Your task to perform on an android device: turn notification dots on Image 0: 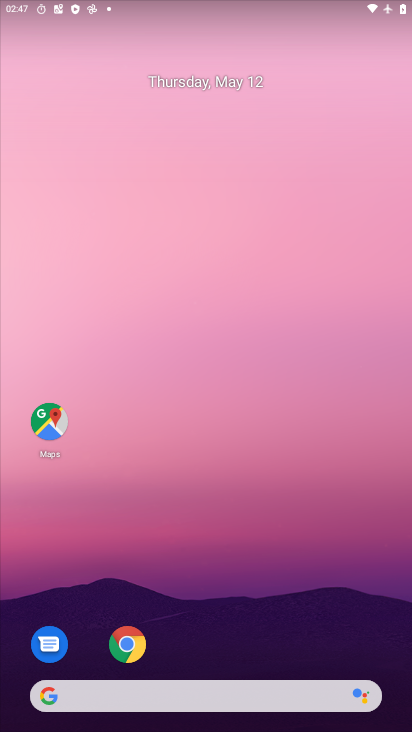
Step 0: drag from (255, 443) to (219, 118)
Your task to perform on an android device: turn notification dots on Image 1: 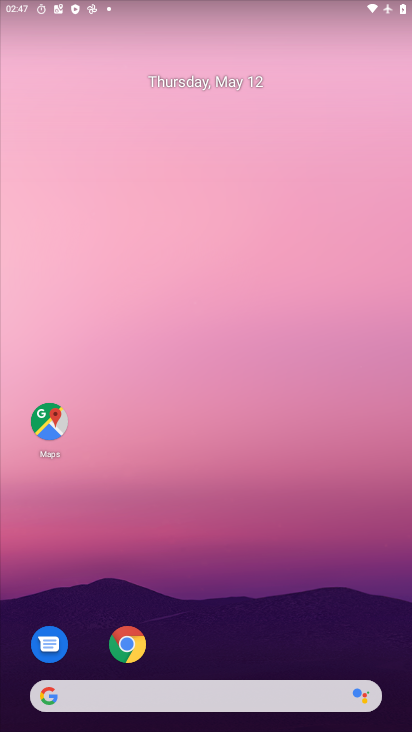
Step 1: drag from (259, 569) to (183, 41)
Your task to perform on an android device: turn notification dots on Image 2: 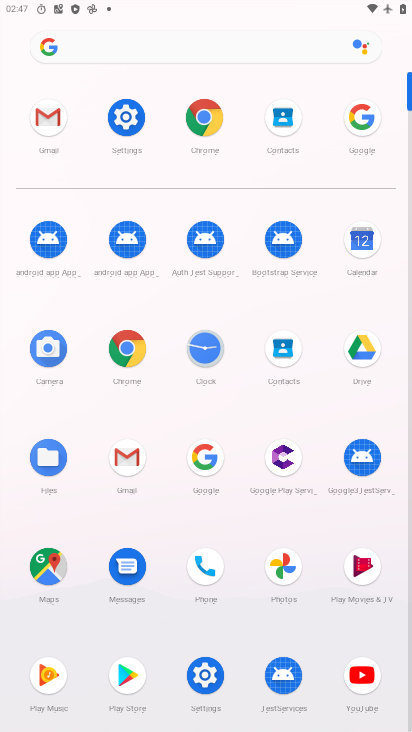
Step 2: click (127, 122)
Your task to perform on an android device: turn notification dots on Image 3: 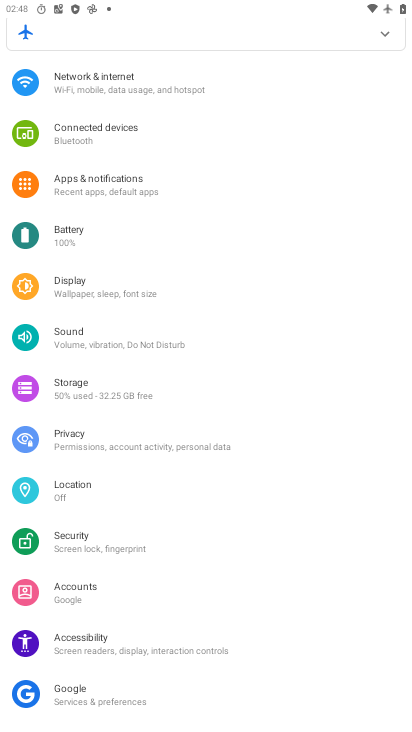
Step 3: click (124, 183)
Your task to perform on an android device: turn notification dots on Image 4: 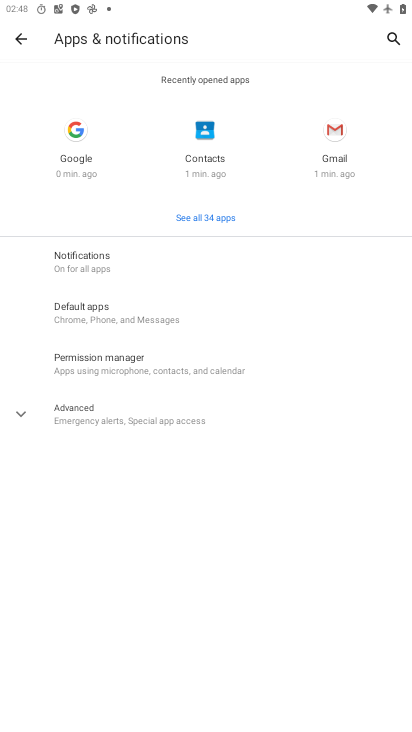
Step 4: click (181, 264)
Your task to perform on an android device: turn notification dots on Image 5: 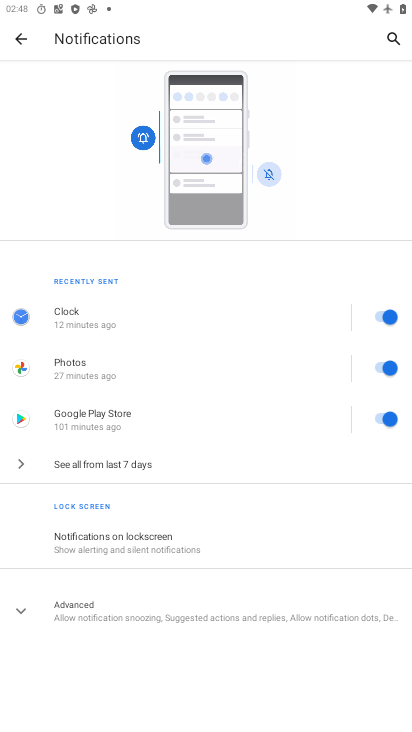
Step 5: click (208, 601)
Your task to perform on an android device: turn notification dots on Image 6: 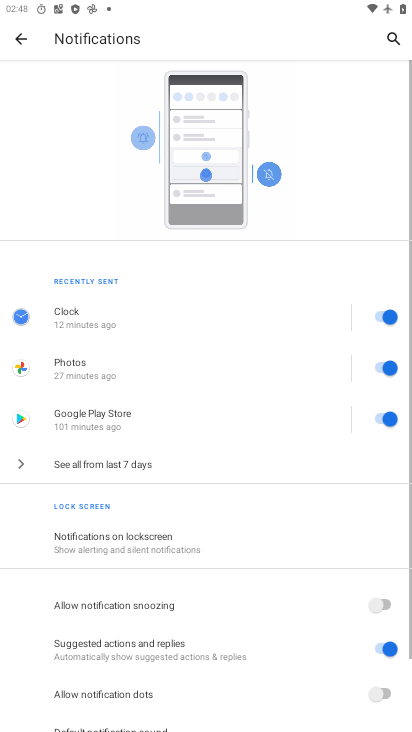
Step 6: drag from (235, 629) to (251, 329)
Your task to perform on an android device: turn notification dots on Image 7: 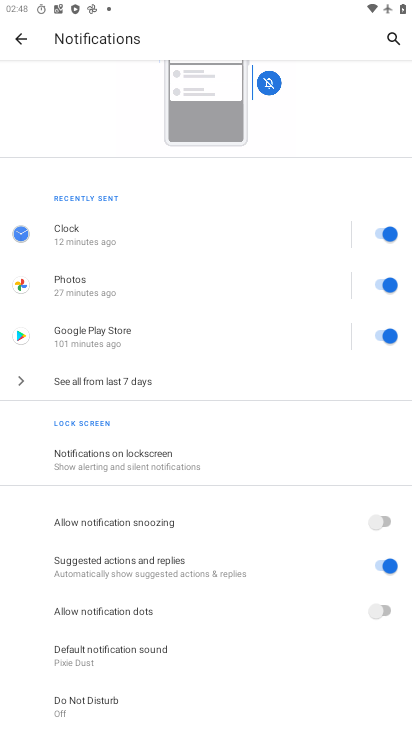
Step 7: click (376, 603)
Your task to perform on an android device: turn notification dots on Image 8: 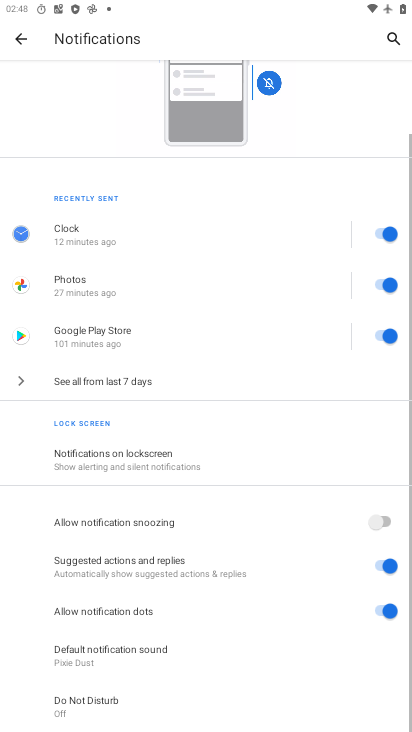
Step 8: task complete